Your task to perform on an android device: Go to Google maps Image 0: 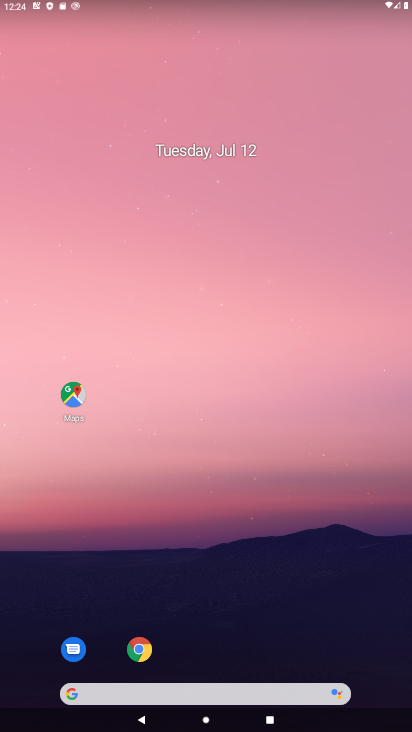
Step 0: drag from (364, 694) to (242, 48)
Your task to perform on an android device: Go to Google maps Image 1: 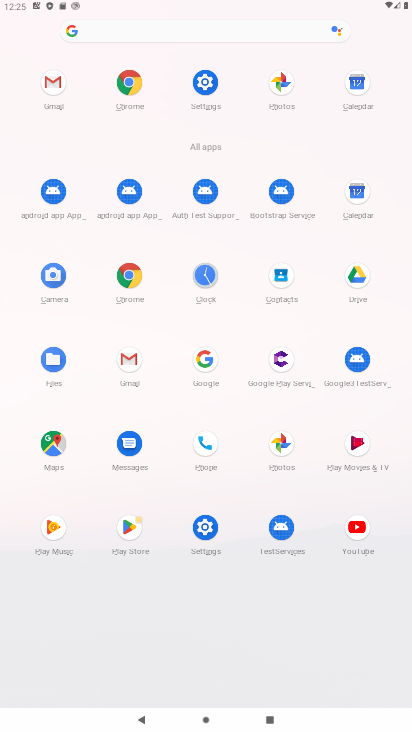
Step 1: click (52, 432)
Your task to perform on an android device: Go to Google maps Image 2: 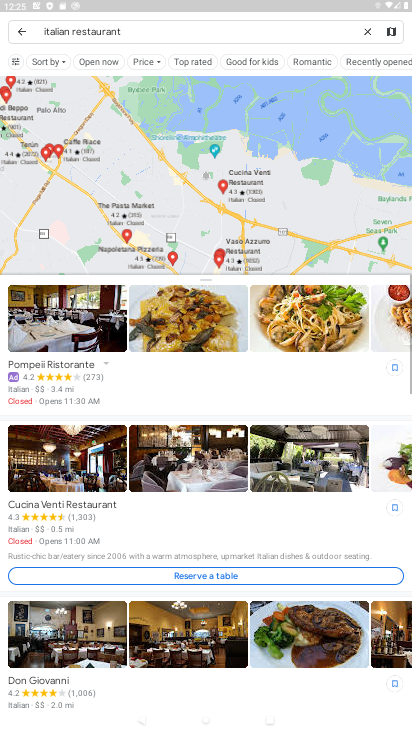
Step 2: click (372, 25)
Your task to perform on an android device: Go to Google maps Image 3: 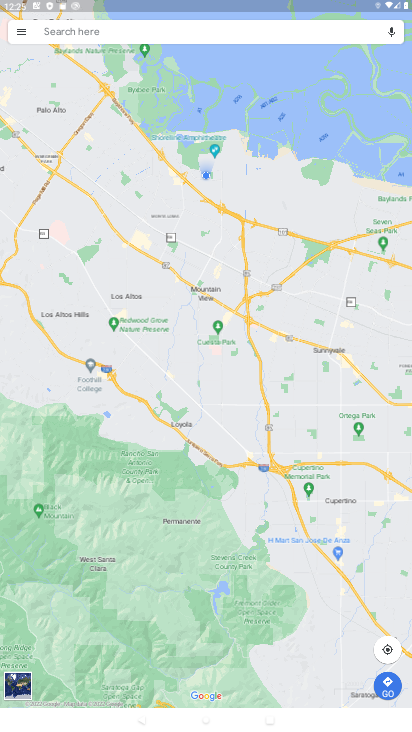
Step 3: task complete